Your task to perform on an android device: Add razer deathadder to the cart on costco Image 0: 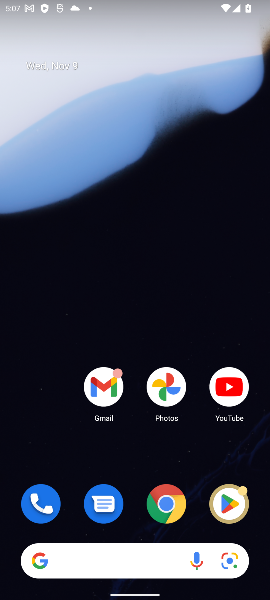
Step 0: click (120, 550)
Your task to perform on an android device: Add razer deathadder to the cart on costco Image 1: 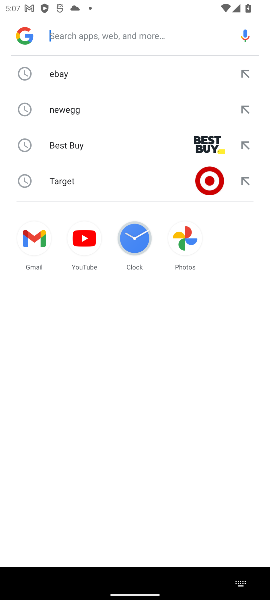
Step 1: type "costco"
Your task to perform on an android device: Add razer deathadder to the cart on costco Image 2: 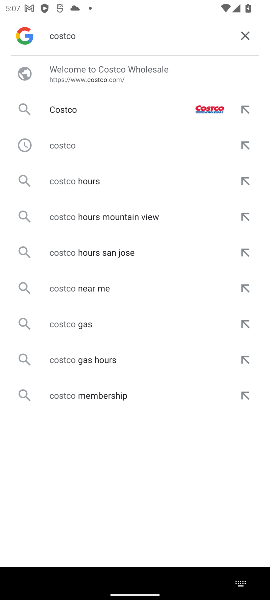
Step 2: click (166, 107)
Your task to perform on an android device: Add razer deathadder to the cart on costco Image 3: 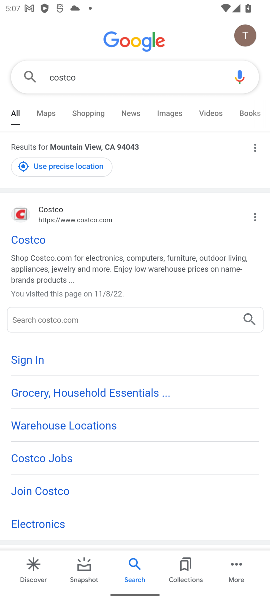
Step 3: click (44, 214)
Your task to perform on an android device: Add razer deathadder to the cart on costco Image 4: 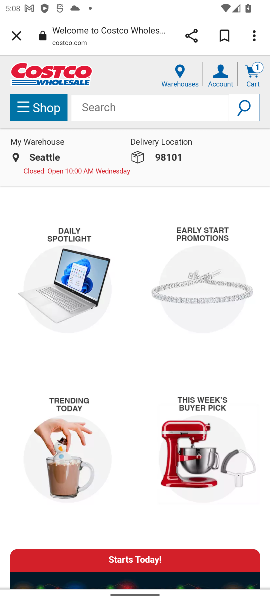
Step 4: click (129, 109)
Your task to perform on an android device: Add razer deathadder to the cart on costco Image 5: 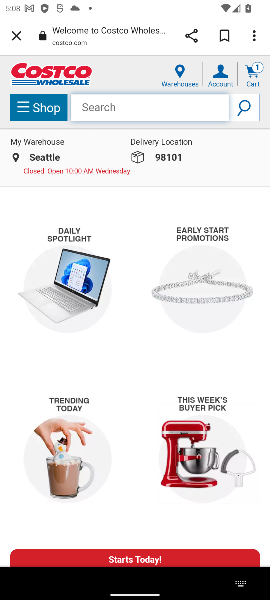
Step 5: type "razer deathadde"
Your task to perform on an android device: Add razer deathadder to the cart on costco Image 6: 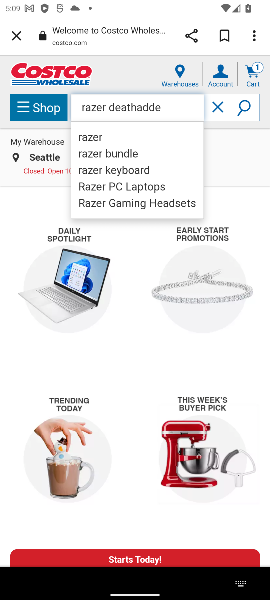
Step 6: click (97, 133)
Your task to perform on an android device: Add razer deathadder to the cart on costco Image 7: 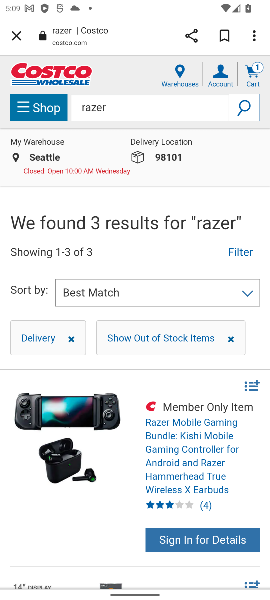
Step 7: drag from (100, 515) to (142, 253)
Your task to perform on an android device: Add razer deathadder to the cart on costco Image 8: 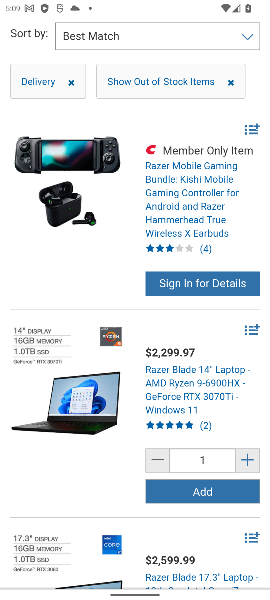
Step 8: click (87, 191)
Your task to perform on an android device: Add razer deathadder to the cart on costco Image 9: 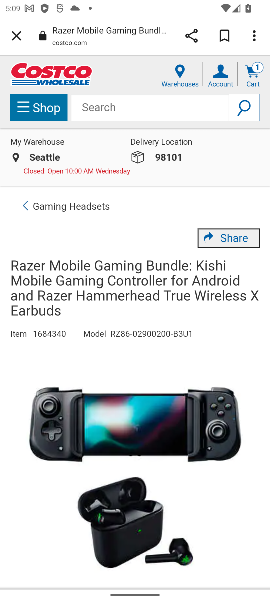
Step 9: drag from (142, 383) to (159, 162)
Your task to perform on an android device: Add razer deathadder to the cart on costco Image 10: 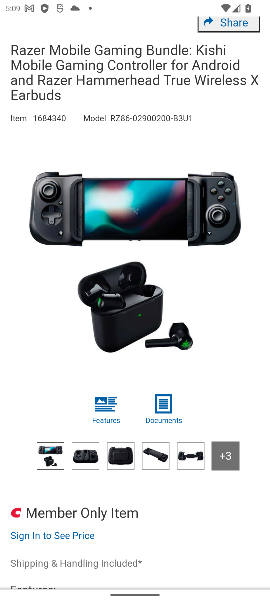
Step 10: drag from (116, 445) to (116, 259)
Your task to perform on an android device: Add razer deathadder to the cart on costco Image 11: 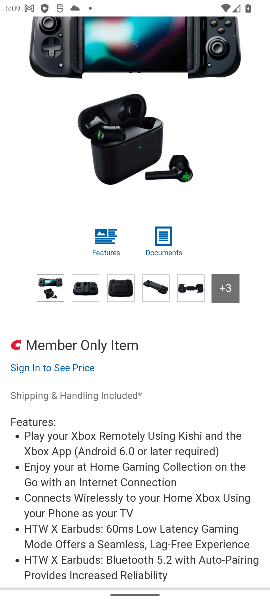
Step 11: drag from (131, 489) to (140, 333)
Your task to perform on an android device: Add razer deathadder to the cart on costco Image 12: 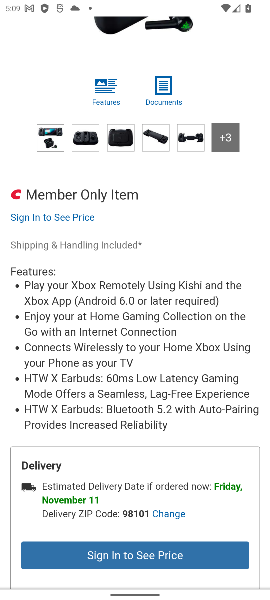
Step 12: drag from (145, 507) to (132, 379)
Your task to perform on an android device: Add razer deathadder to the cart on costco Image 13: 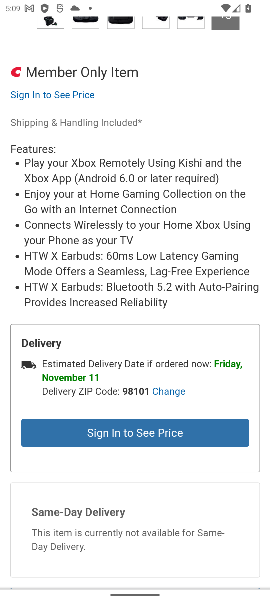
Step 13: drag from (113, 464) to (109, 116)
Your task to perform on an android device: Add razer deathadder to the cart on costco Image 14: 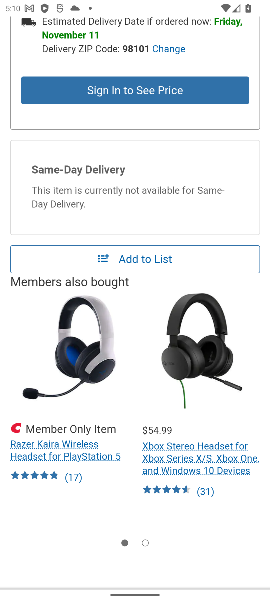
Step 14: click (158, 121)
Your task to perform on an android device: Add razer deathadder to the cart on costco Image 15: 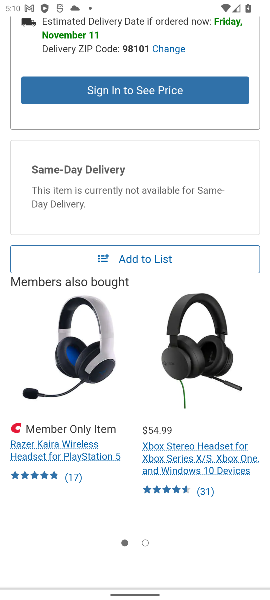
Step 15: click (138, 255)
Your task to perform on an android device: Add razer deathadder to the cart on costco Image 16: 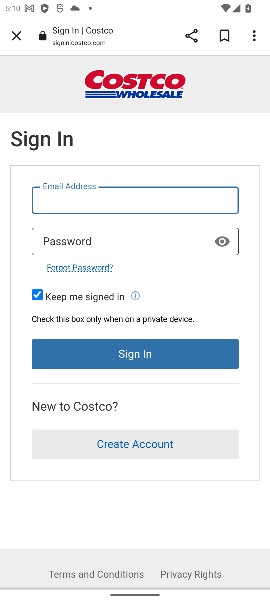
Step 16: task complete